Your task to perform on an android device: Add "dell alienware" to the cart on target Image 0: 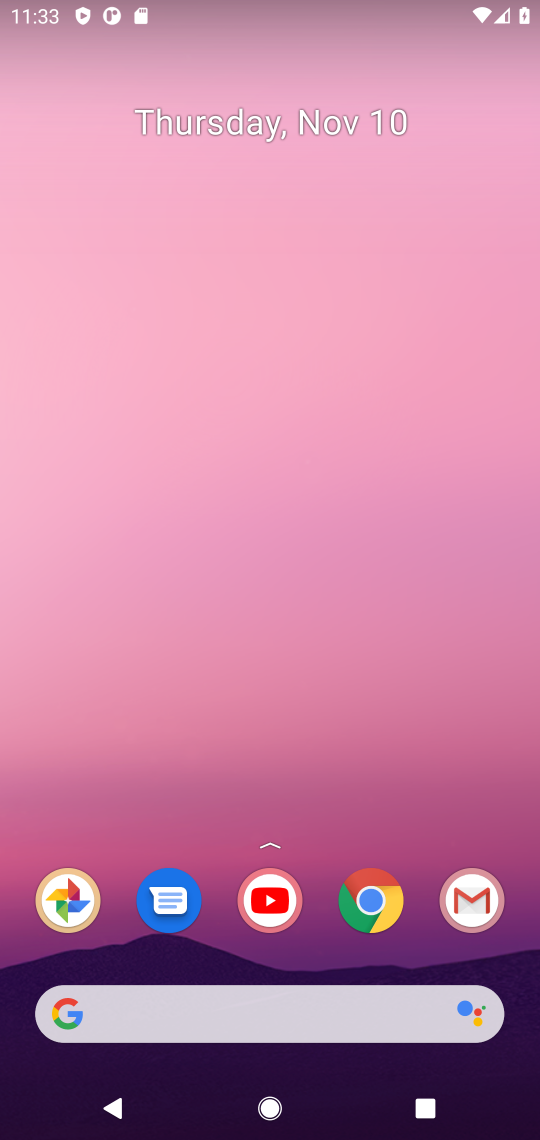
Step 0: click (364, 898)
Your task to perform on an android device: Add "dell alienware" to the cart on target Image 1: 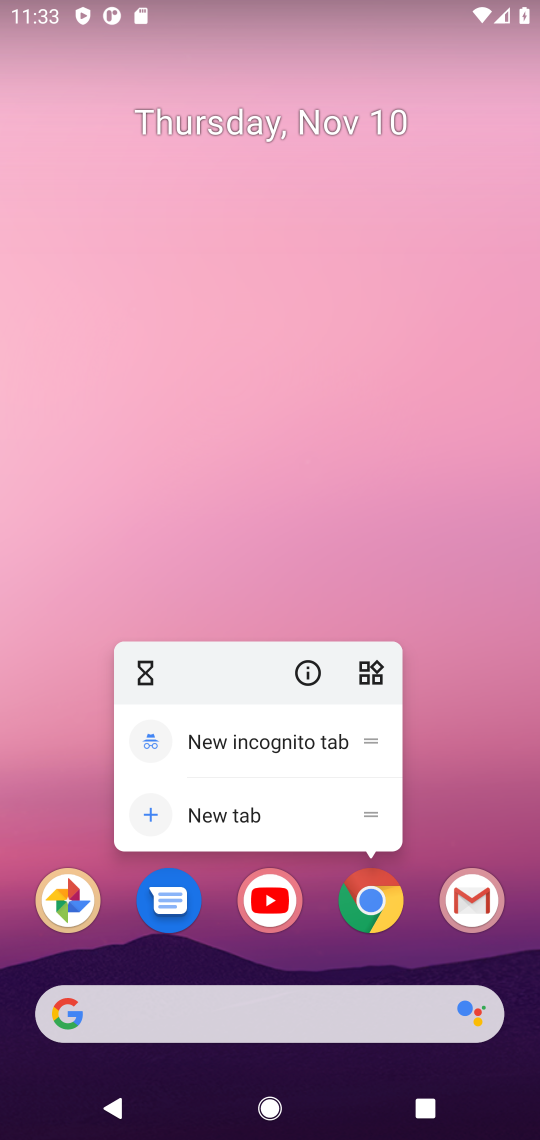
Step 1: click (364, 899)
Your task to perform on an android device: Add "dell alienware" to the cart on target Image 2: 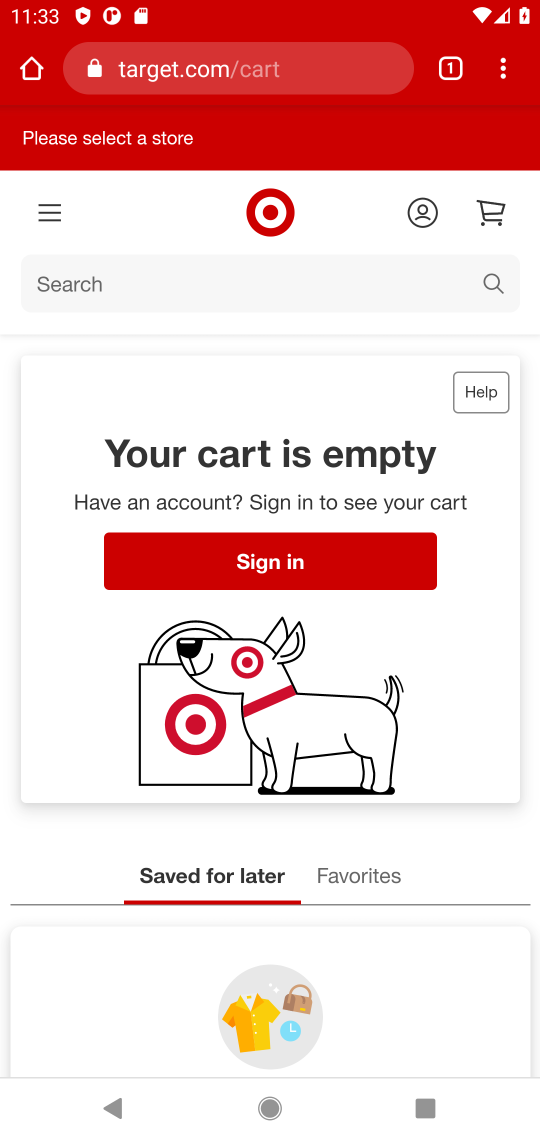
Step 2: click (93, 274)
Your task to perform on an android device: Add "dell alienware" to the cart on target Image 3: 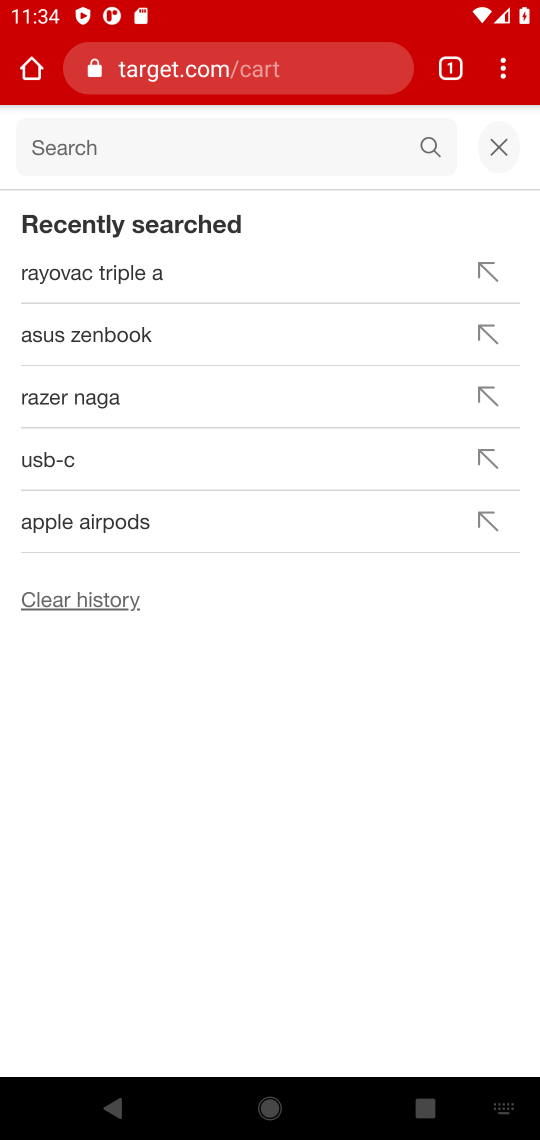
Step 3: type "dell alienware"
Your task to perform on an android device: Add "dell alienware" to the cart on target Image 4: 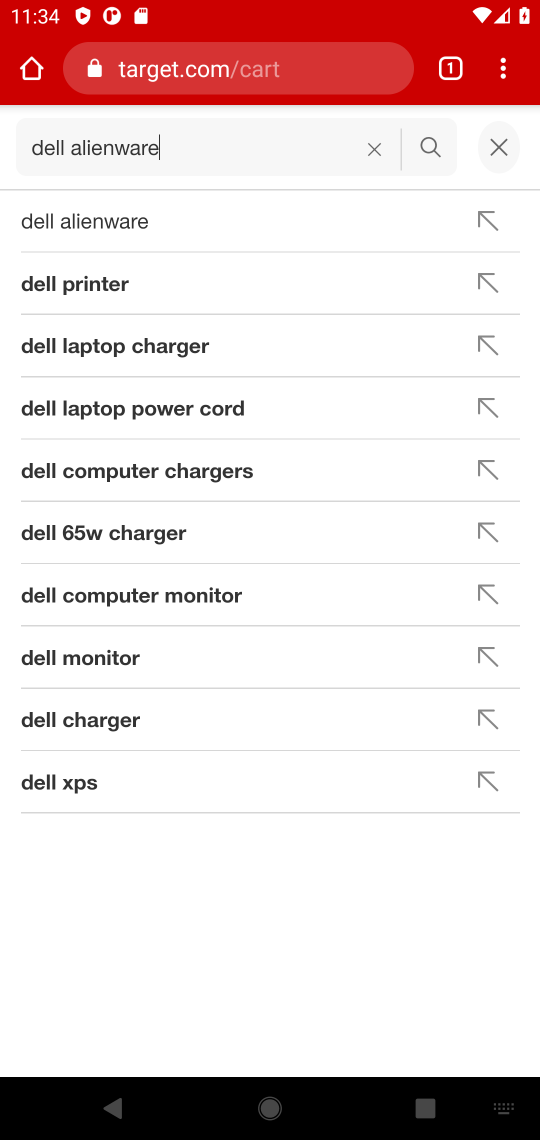
Step 4: press enter
Your task to perform on an android device: Add "dell alienware" to the cart on target Image 5: 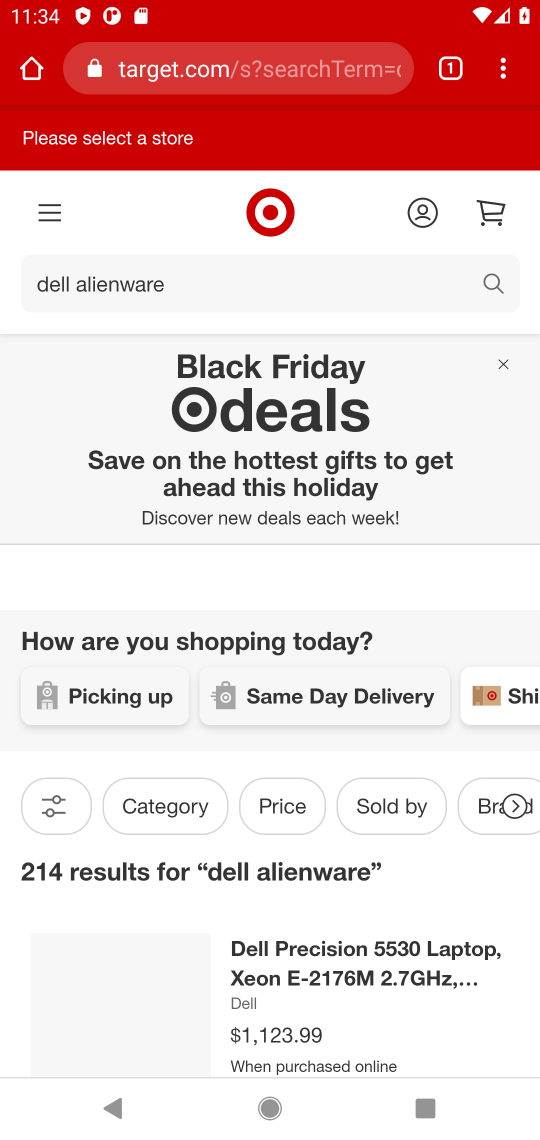
Step 5: task complete